Your task to perform on an android device: Open the calendar app, open the side menu, and click the "Day" option Image 0: 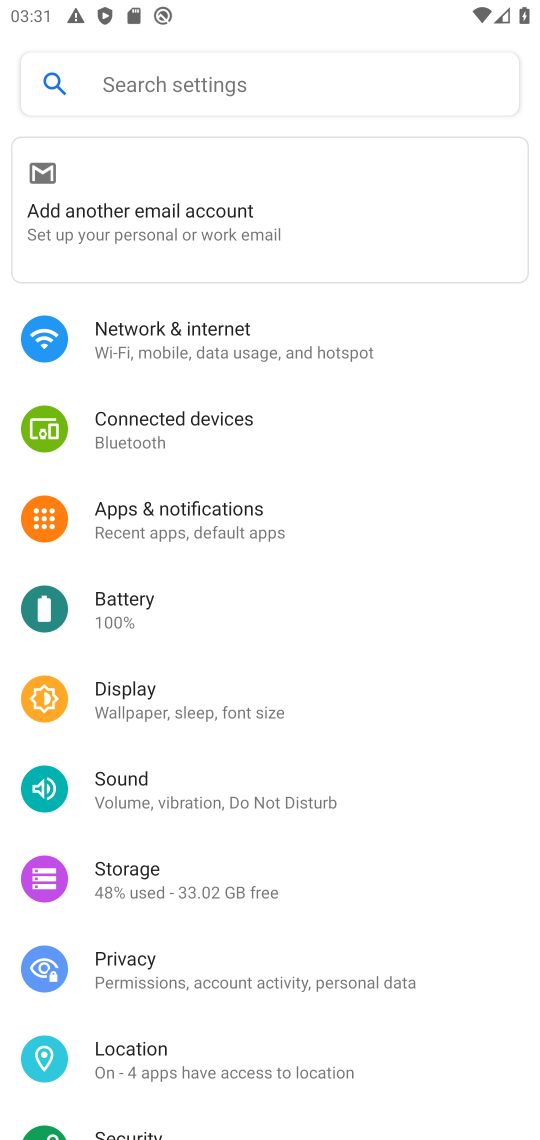
Step 0: press home button
Your task to perform on an android device: Open the calendar app, open the side menu, and click the "Day" option Image 1: 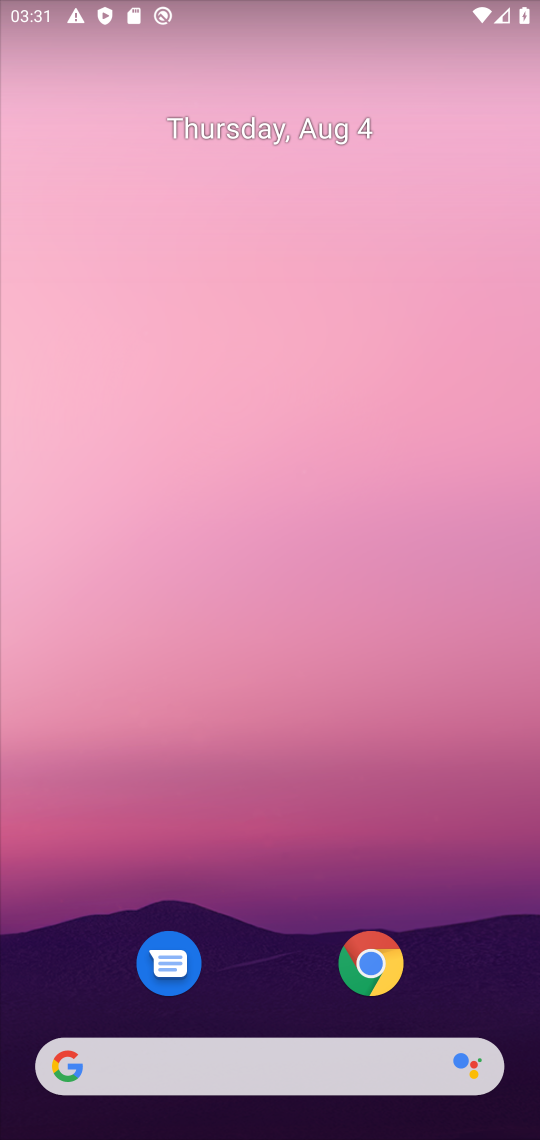
Step 1: drag from (278, 955) to (293, 99)
Your task to perform on an android device: Open the calendar app, open the side menu, and click the "Day" option Image 2: 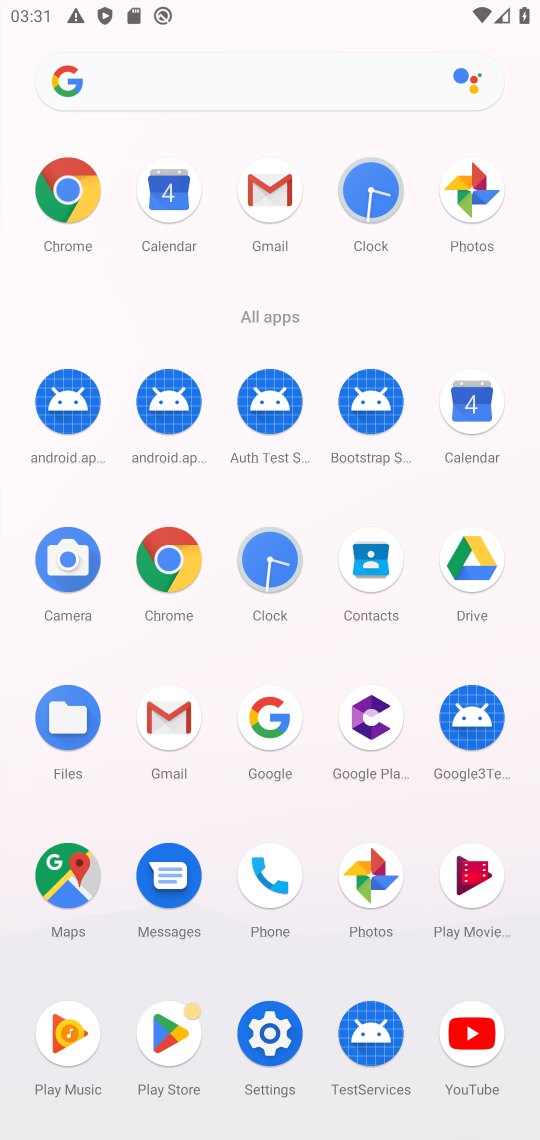
Step 2: click (166, 195)
Your task to perform on an android device: Open the calendar app, open the side menu, and click the "Day" option Image 3: 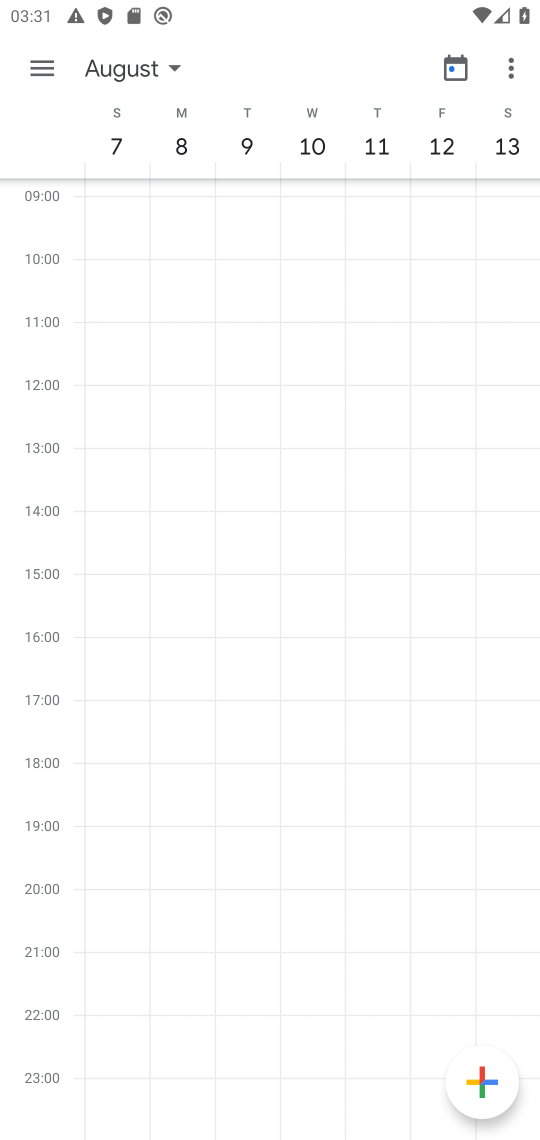
Step 3: click (32, 71)
Your task to perform on an android device: Open the calendar app, open the side menu, and click the "Day" option Image 4: 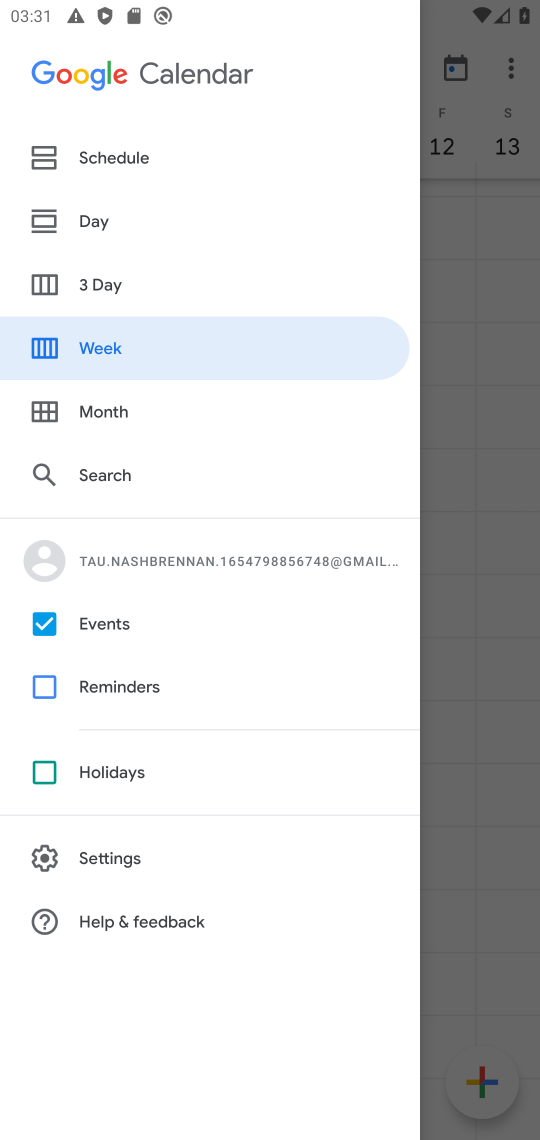
Step 4: click (70, 225)
Your task to perform on an android device: Open the calendar app, open the side menu, and click the "Day" option Image 5: 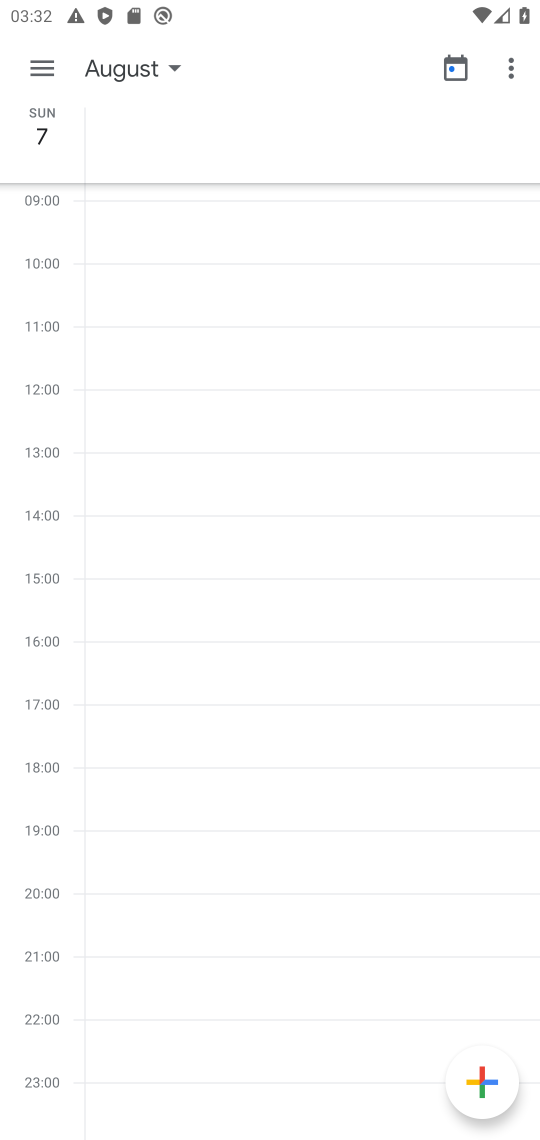
Step 5: task complete